Your task to perform on an android device: Open notification settings Image 0: 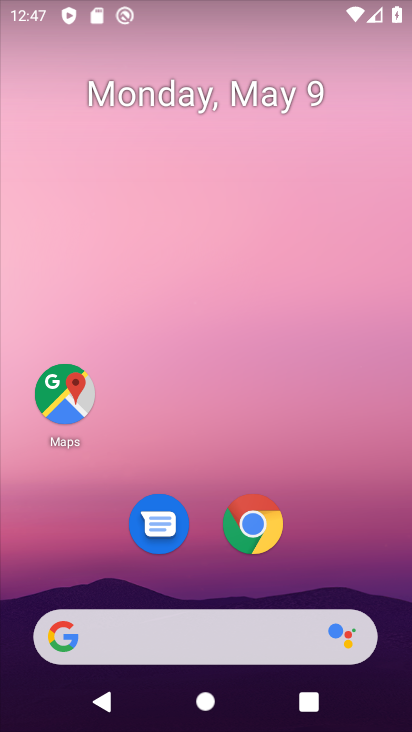
Step 0: click (278, 544)
Your task to perform on an android device: Open notification settings Image 1: 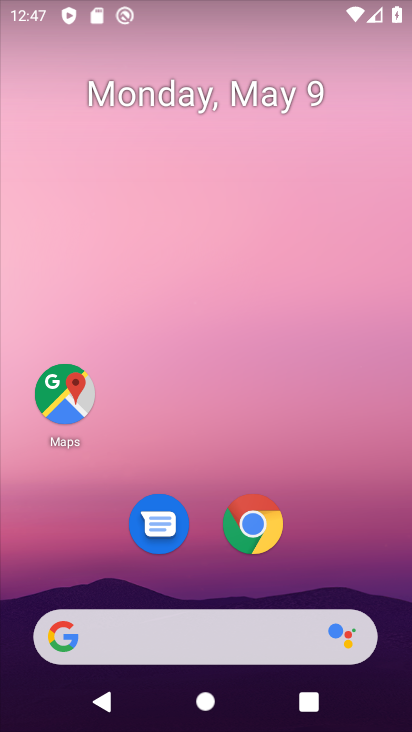
Step 1: drag from (305, 555) to (353, 53)
Your task to perform on an android device: Open notification settings Image 2: 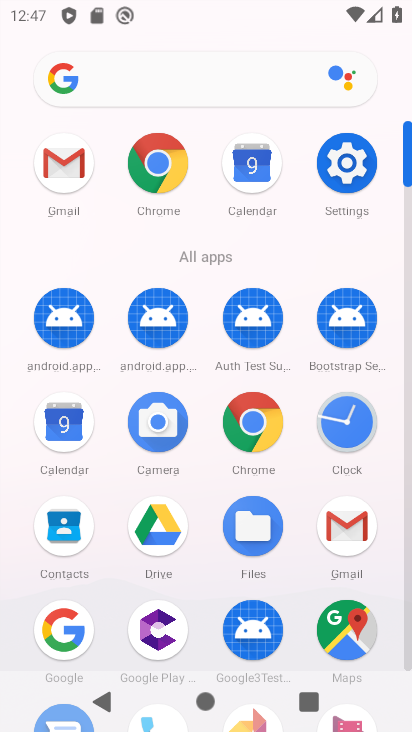
Step 2: click (342, 150)
Your task to perform on an android device: Open notification settings Image 3: 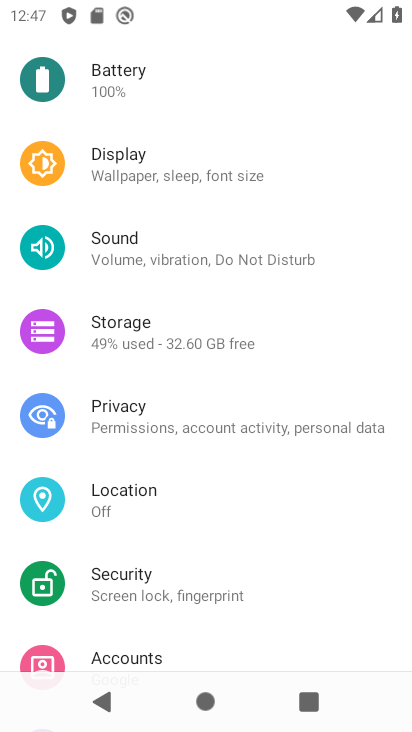
Step 3: drag from (265, 224) to (203, 677)
Your task to perform on an android device: Open notification settings Image 4: 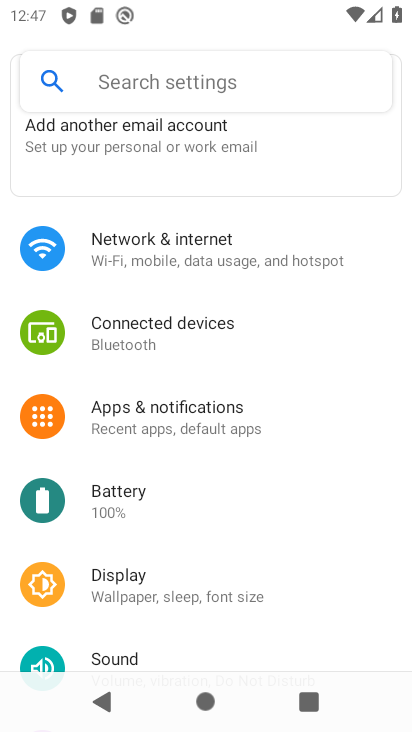
Step 4: click (209, 412)
Your task to perform on an android device: Open notification settings Image 5: 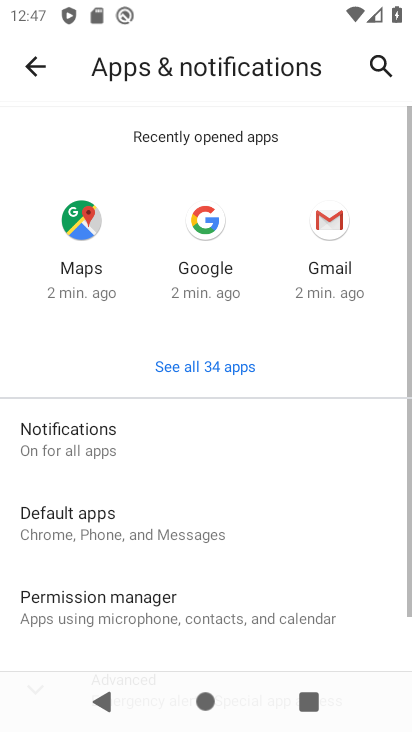
Step 5: task complete